Your task to perform on an android device: Go to Yahoo.com Image 0: 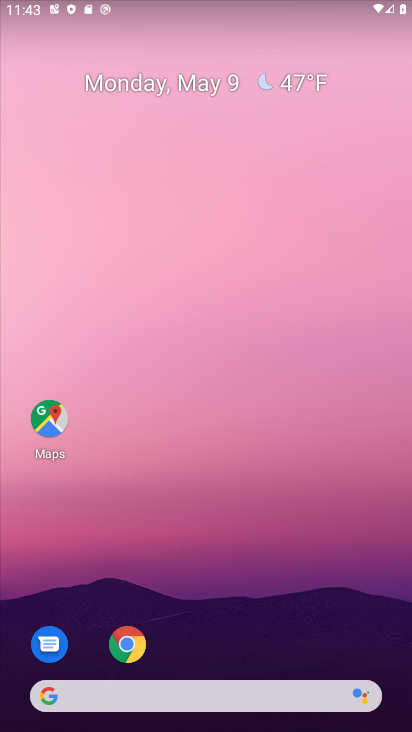
Step 0: click (120, 642)
Your task to perform on an android device: Go to Yahoo.com Image 1: 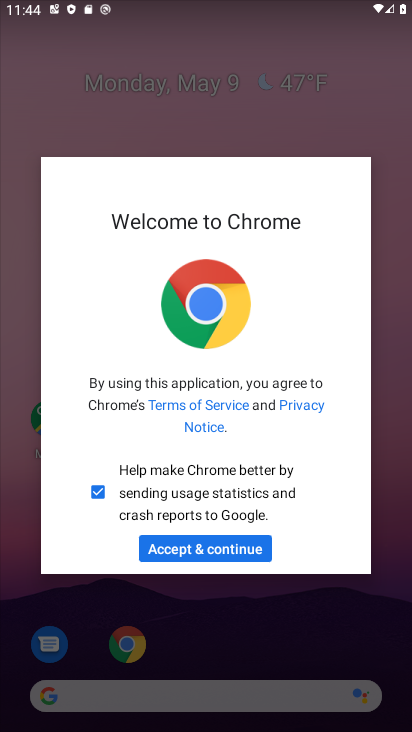
Step 1: click (230, 548)
Your task to perform on an android device: Go to Yahoo.com Image 2: 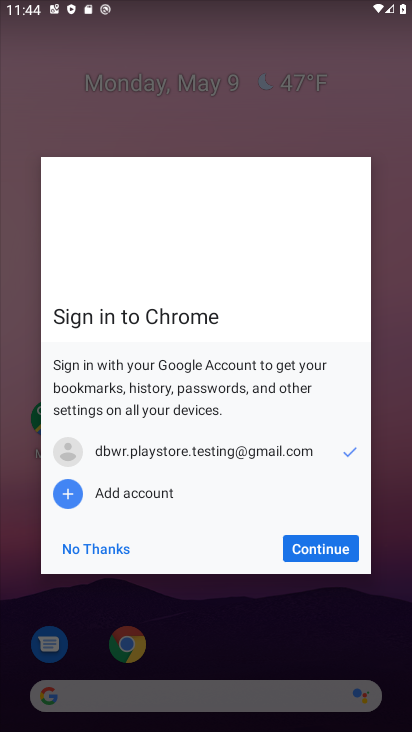
Step 2: click (108, 554)
Your task to perform on an android device: Go to Yahoo.com Image 3: 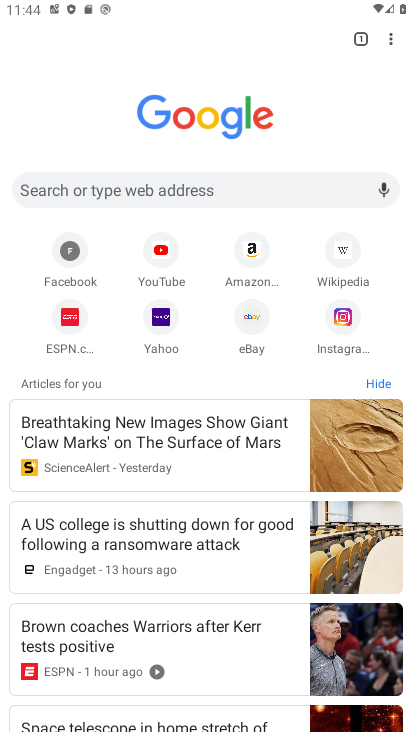
Step 3: click (161, 312)
Your task to perform on an android device: Go to Yahoo.com Image 4: 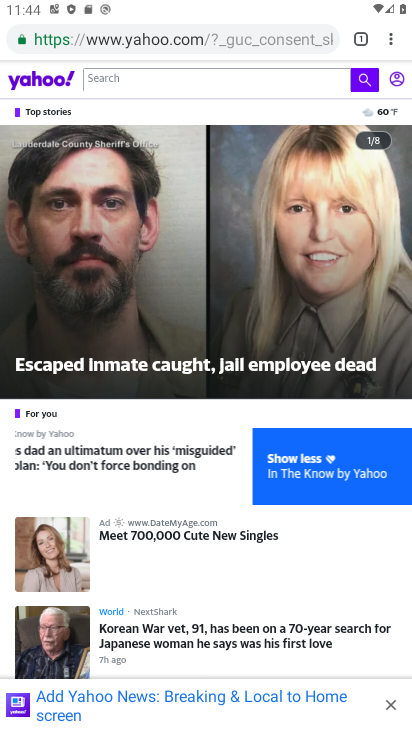
Step 4: task complete